Your task to perform on an android device: Show me the alarms in the clock app Image 0: 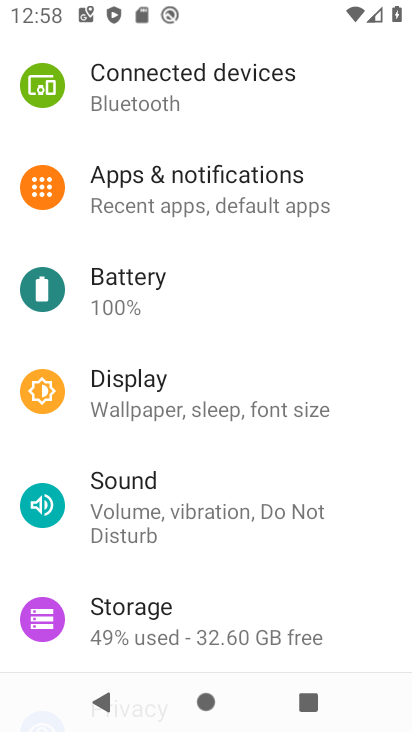
Step 0: press home button
Your task to perform on an android device: Show me the alarms in the clock app Image 1: 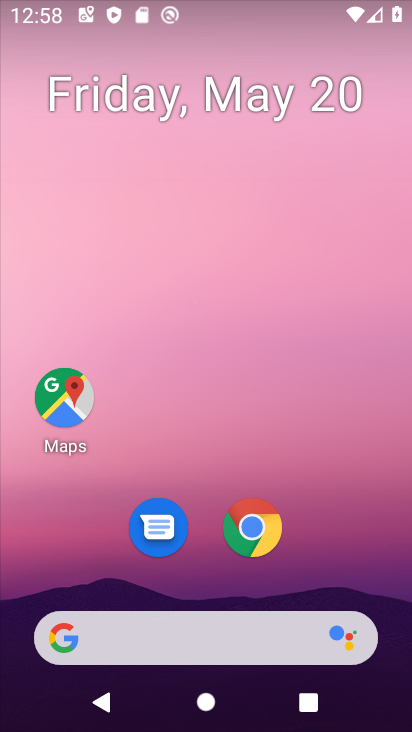
Step 1: drag from (142, 628) to (284, 112)
Your task to perform on an android device: Show me the alarms in the clock app Image 2: 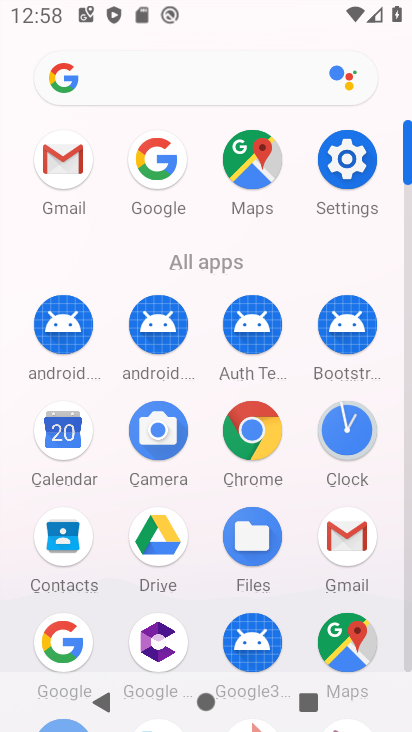
Step 2: click (352, 430)
Your task to perform on an android device: Show me the alarms in the clock app Image 3: 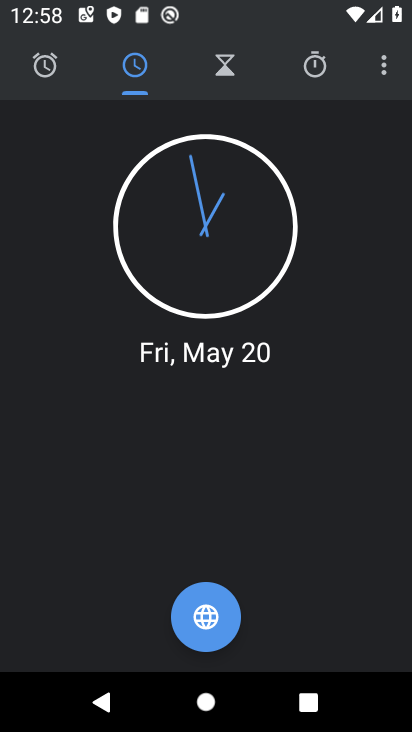
Step 3: click (51, 73)
Your task to perform on an android device: Show me the alarms in the clock app Image 4: 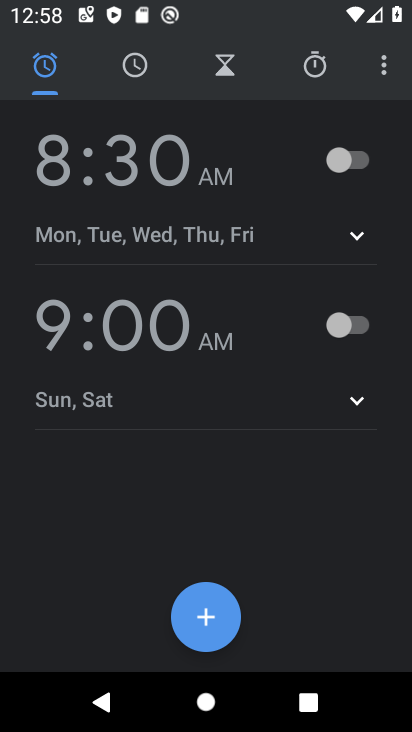
Step 4: task complete